Your task to perform on an android device: set an alarm Image 0: 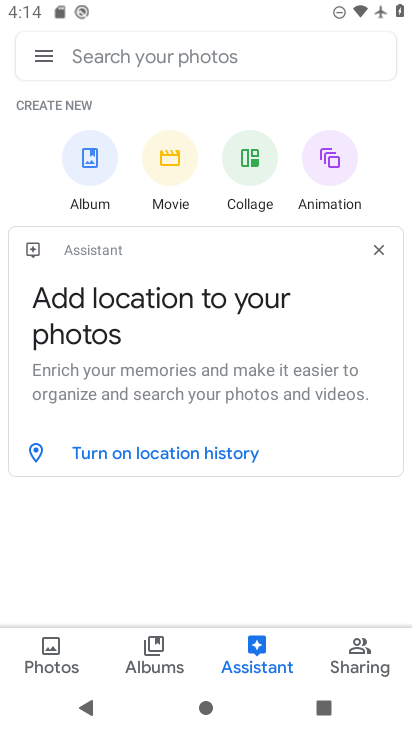
Step 0: press home button
Your task to perform on an android device: set an alarm Image 1: 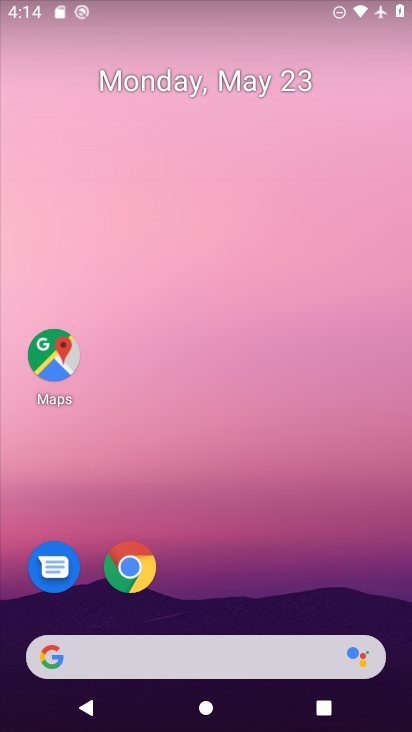
Step 1: drag from (398, 608) to (310, 23)
Your task to perform on an android device: set an alarm Image 2: 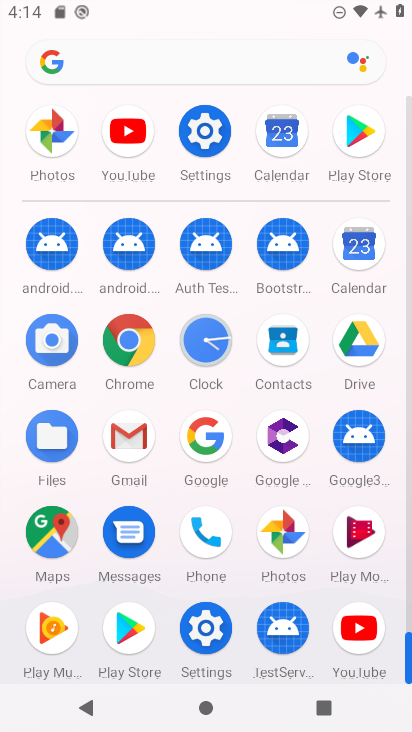
Step 2: click (199, 331)
Your task to perform on an android device: set an alarm Image 3: 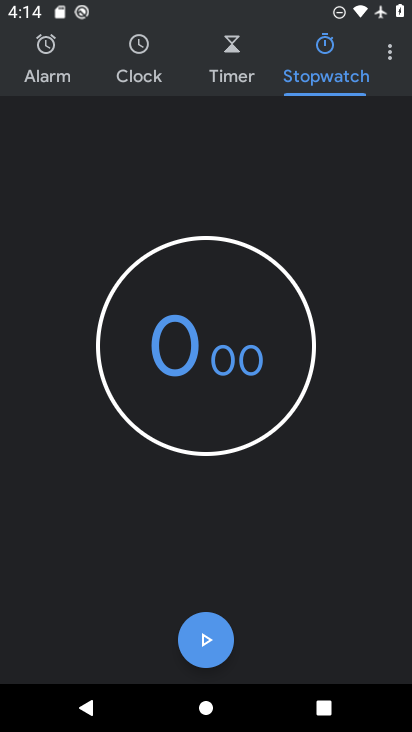
Step 3: click (56, 65)
Your task to perform on an android device: set an alarm Image 4: 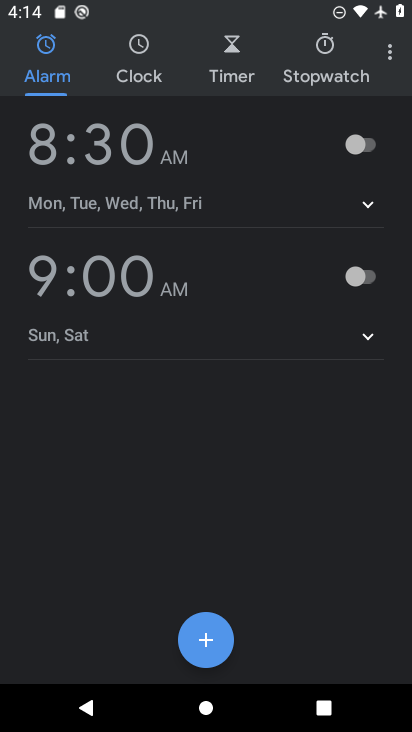
Step 4: click (73, 166)
Your task to perform on an android device: set an alarm Image 5: 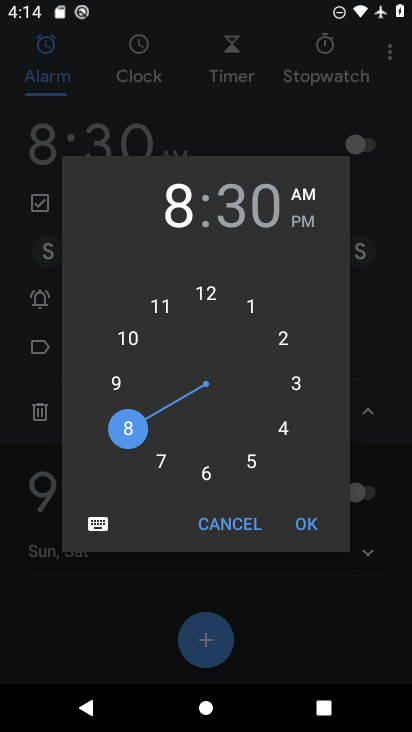
Step 5: click (207, 473)
Your task to perform on an android device: set an alarm Image 6: 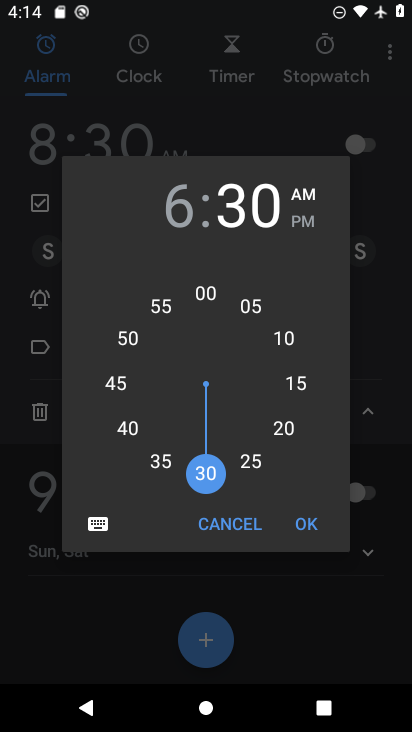
Step 6: click (294, 381)
Your task to perform on an android device: set an alarm Image 7: 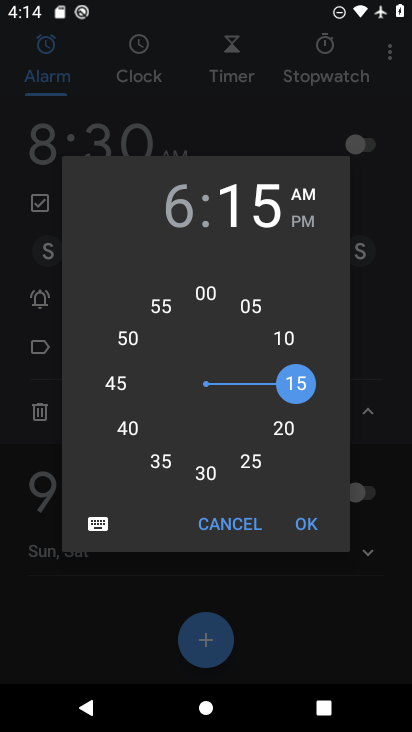
Step 7: click (297, 524)
Your task to perform on an android device: set an alarm Image 8: 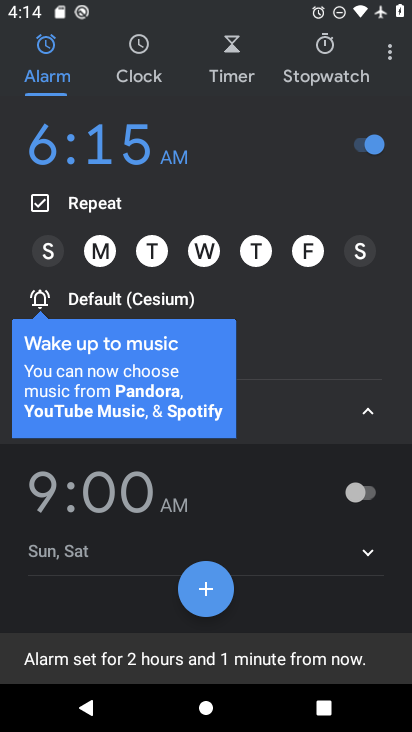
Step 8: click (353, 246)
Your task to perform on an android device: set an alarm Image 9: 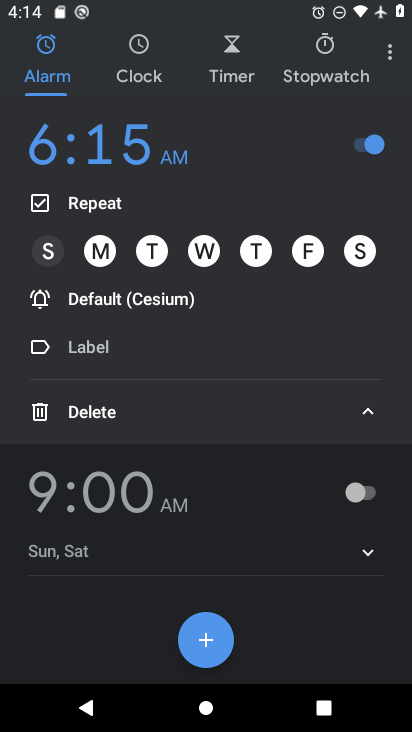
Step 9: click (367, 415)
Your task to perform on an android device: set an alarm Image 10: 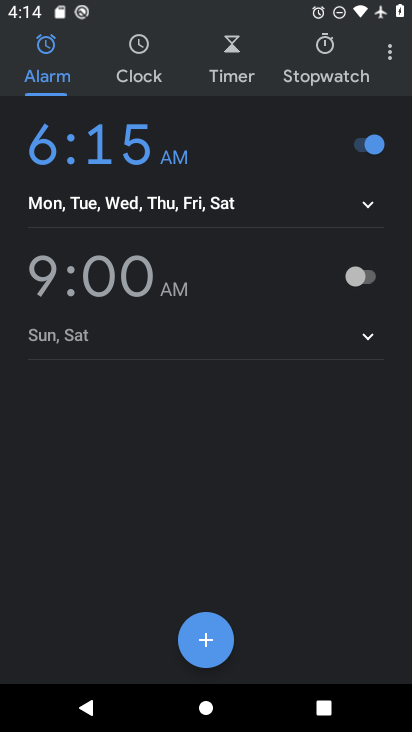
Step 10: task complete